Your task to perform on an android device: Open CNN.com Image 0: 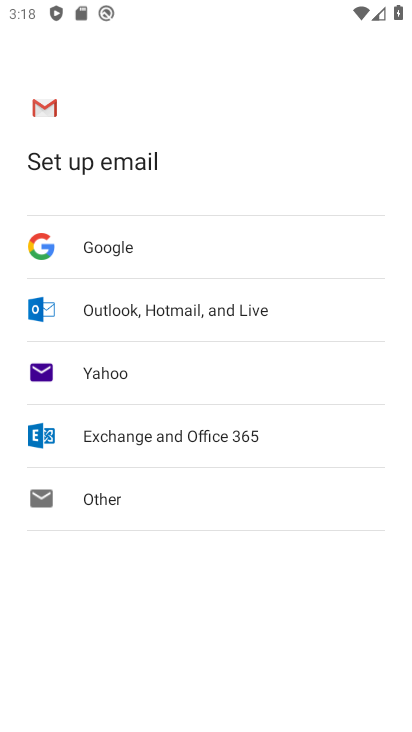
Step 0: press home button
Your task to perform on an android device: Open CNN.com Image 1: 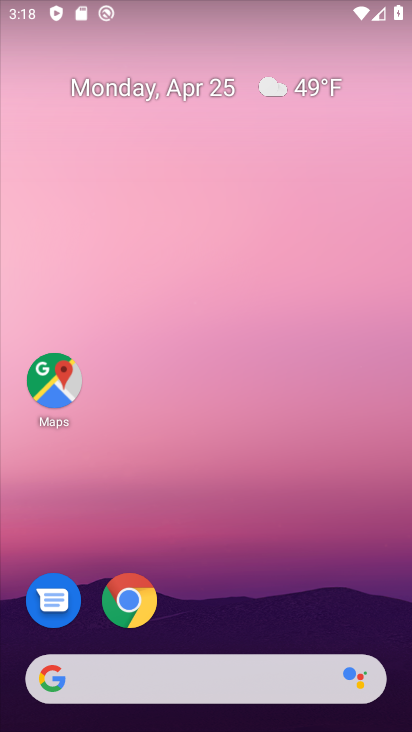
Step 1: click (138, 675)
Your task to perform on an android device: Open CNN.com Image 2: 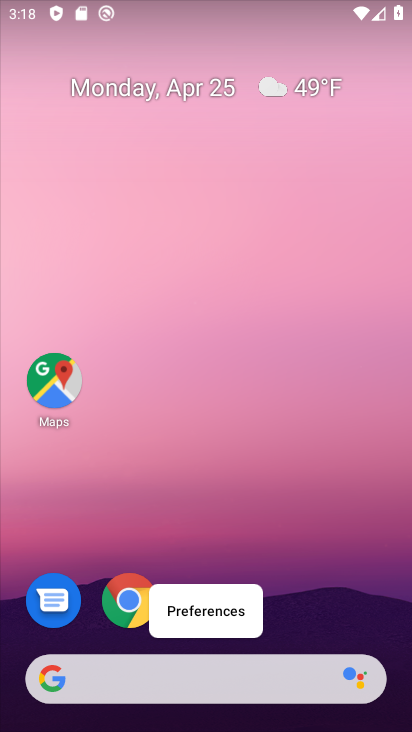
Step 2: click (138, 675)
Your task to perform on an android device: Open CNN.com Image 3: 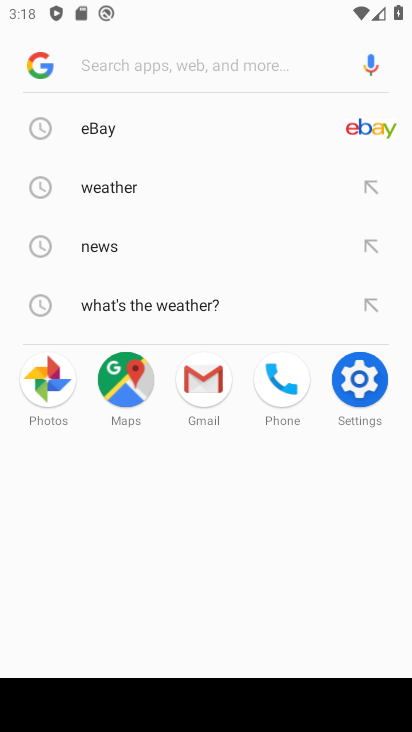
Step 3: type "cnn.com"
Your task to perform on an android device: Open CNN.com Image 4: 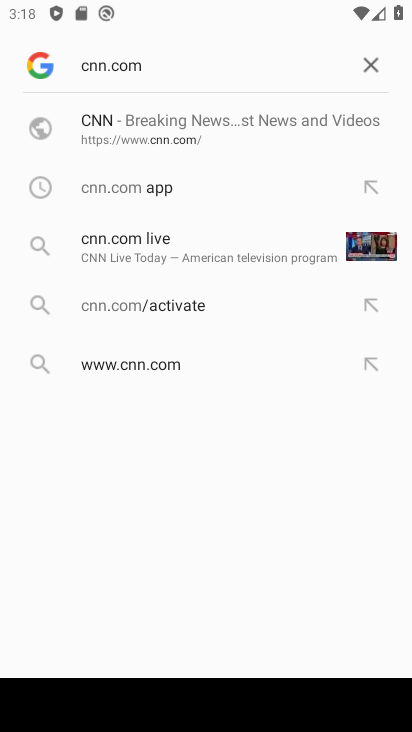
Step 4: click (207, 125)
Your task to perform on an android device: Open CNN.com Image 5: 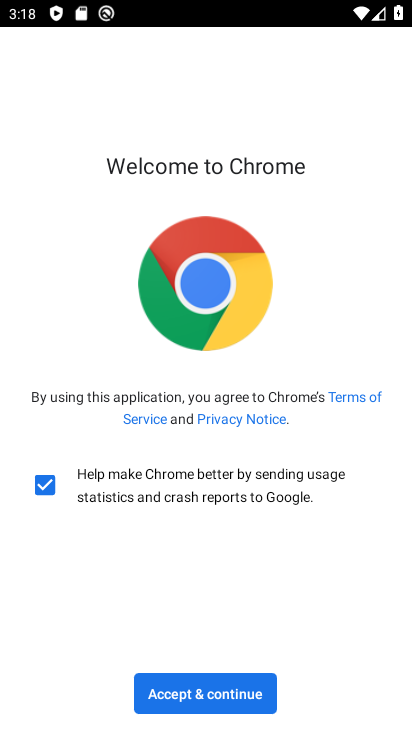
Step 5: click (228, 685)
Your task to perform on an android device: Open CNN.com Image 6: 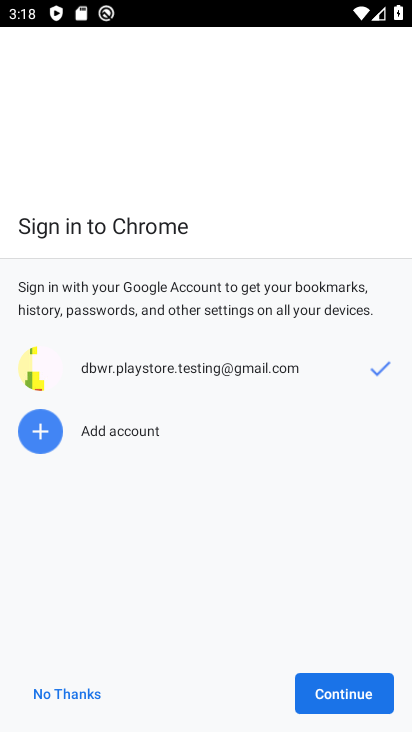
Step 6: click (331, 687)
Your task to perform on an android device: Open CNN.com Image 7: 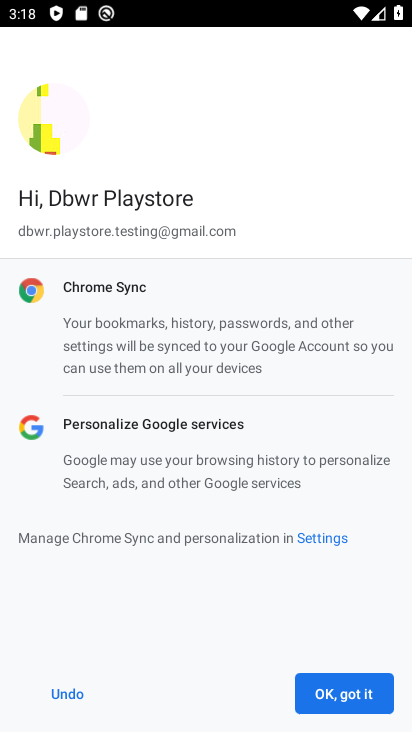
Step 7: click (331, 687)
Your task to perform on an android device: Open CNN.com Image 8: 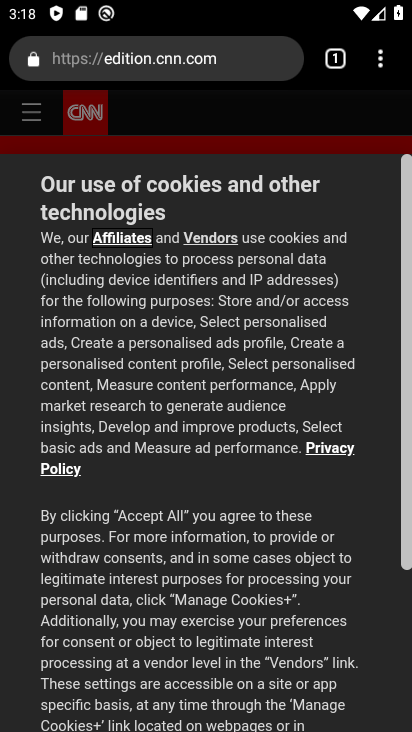
Step 8: task complete